Your task to perform on an android device: check storage Image 0: 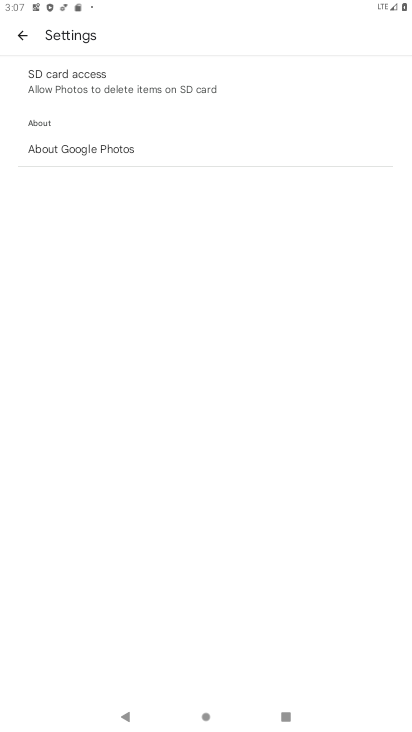
Step 0: press home button
Your task to perform on an android device: check storage Image 1: 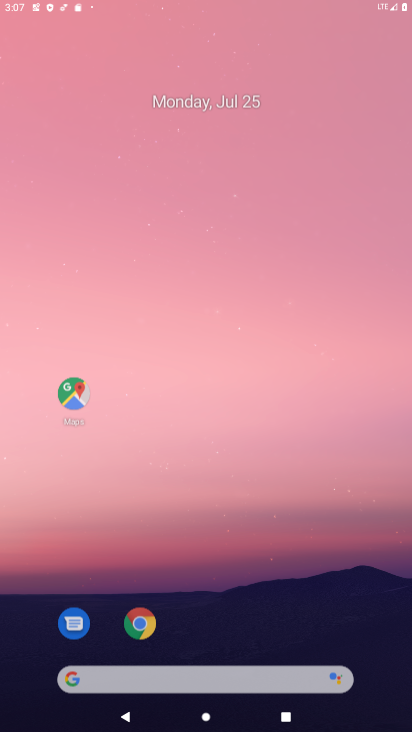
Step 1: drag from (279, 436) to (294, 12)
Your task to perform on an android device: check storage Image 2: 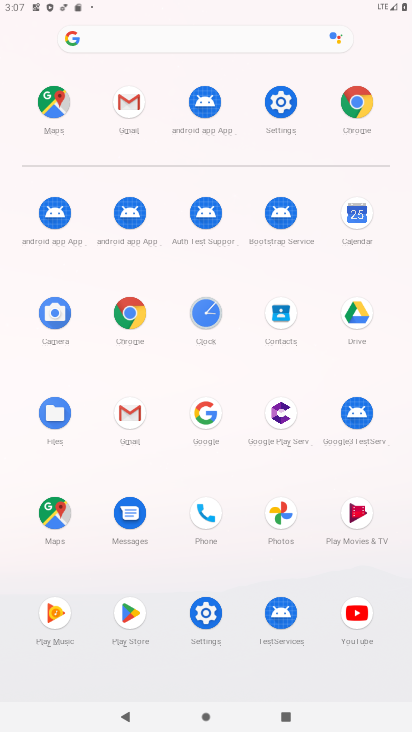
Step 2: click (283, 92)
Your task to perform on an android device: check storage Image 3: 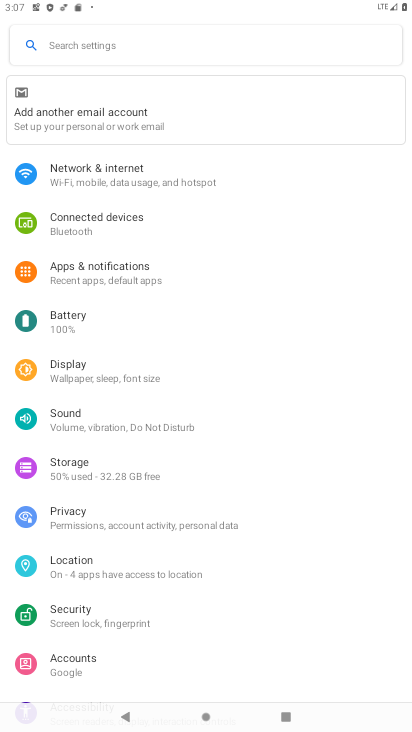
Step 3: click (97, 469)
Your task to perform on an android device: check storage Image 4: 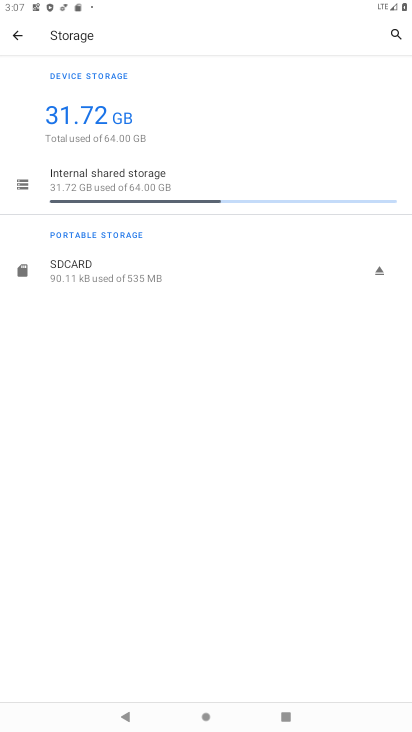
Step 4: task complete